Your task to perform on an android device: turn notification dots on Image 0: 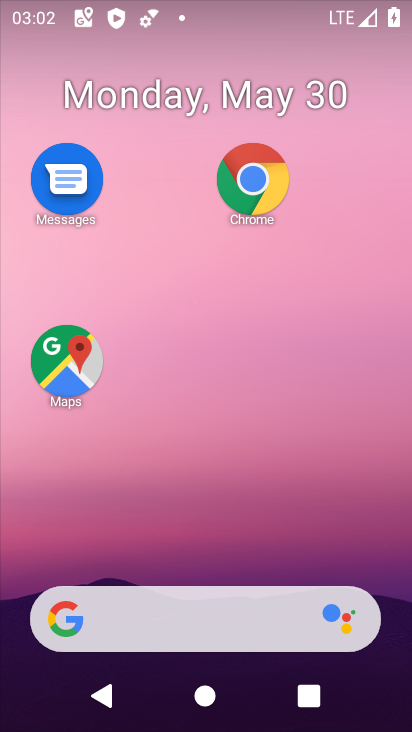
Step 0: drag from (205, 561) to (362, 255)
Your task to perform on an android device: turn notification dots on Image 1: 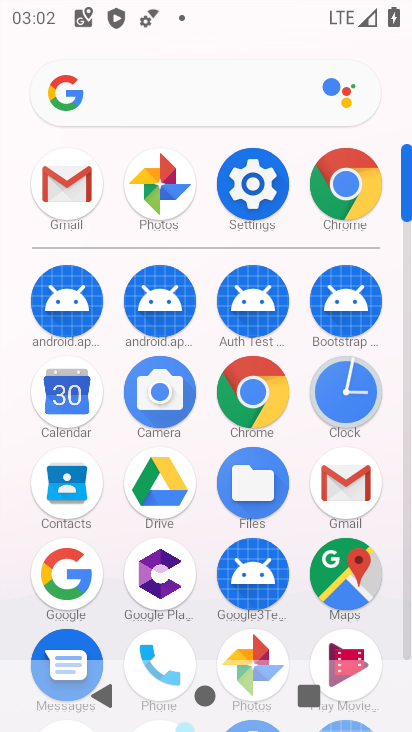
Step 1: click (55, 196)
Your task to perform on an android device: turn notification dots on Image 2: 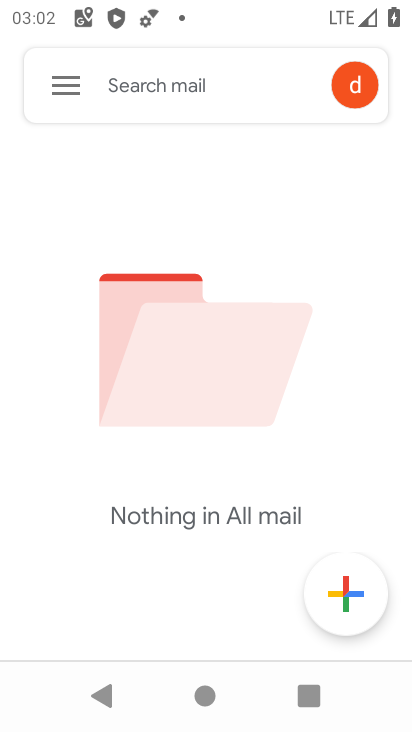
Step 2: click (75, 90)
Your task to perform on an android device: turn notification dots on Image 3: 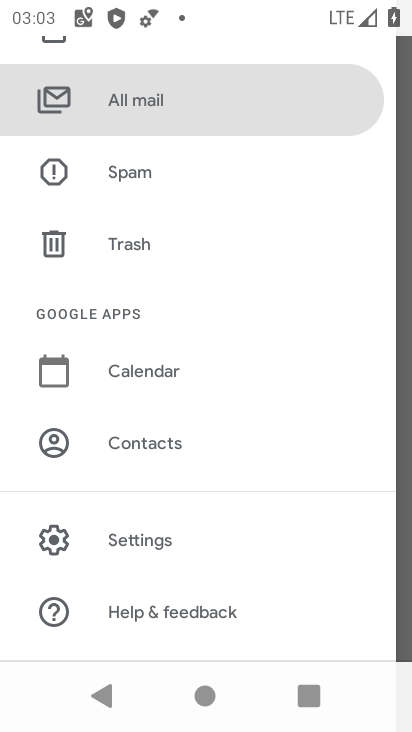
Step 3: click (157, 538)
Your task to perform on an android device: turn notification dots on Image 4: 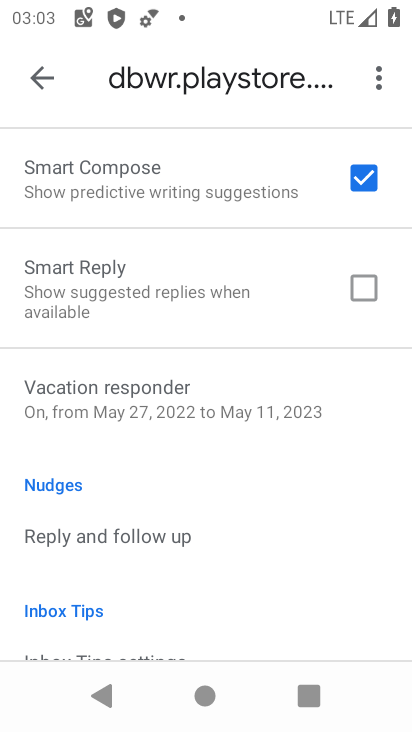
Step 4: drag from (143, 231) to (143, 650)
Your task to perform on an android device: turn notification dots on Image 5: 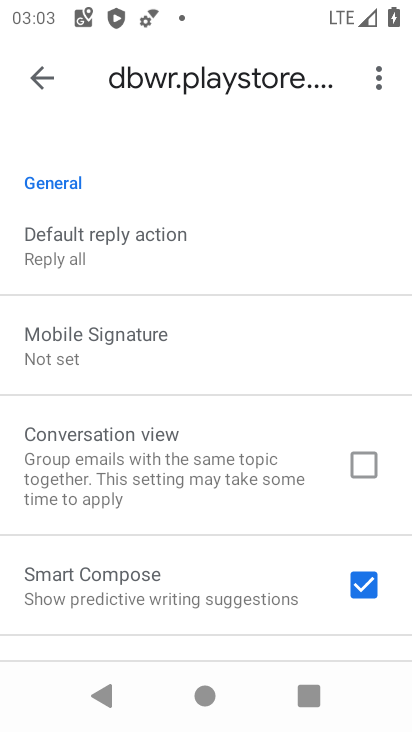
Step 5: drag from (117, 531) to (119, 692)
Your task to perform on an android device: turn notification dots on Image 6: 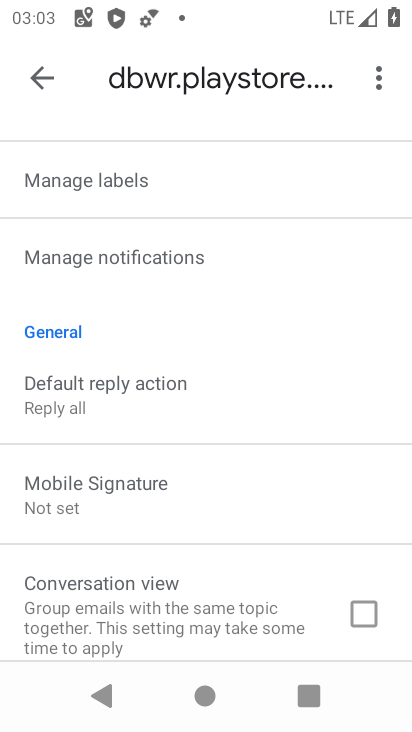
Step 6: drag from (149, 330) to (159, 731)
Your task to perform on an android device: turn notification dots on Image 7: 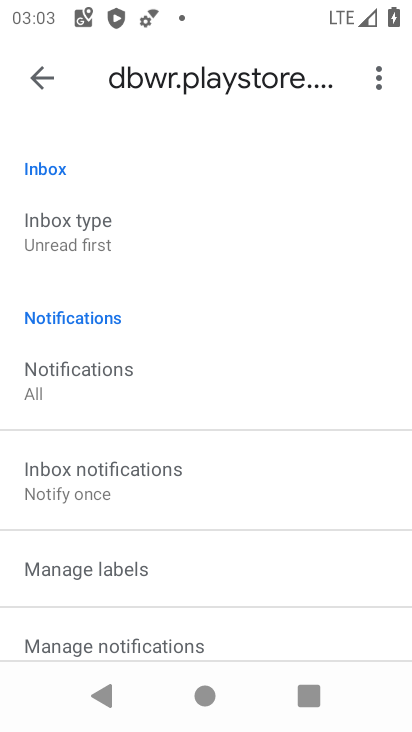
Step 7: drag from (149, 219) to (146, 557)
Your task to perform on an android device: turn notification dots on Image 8: 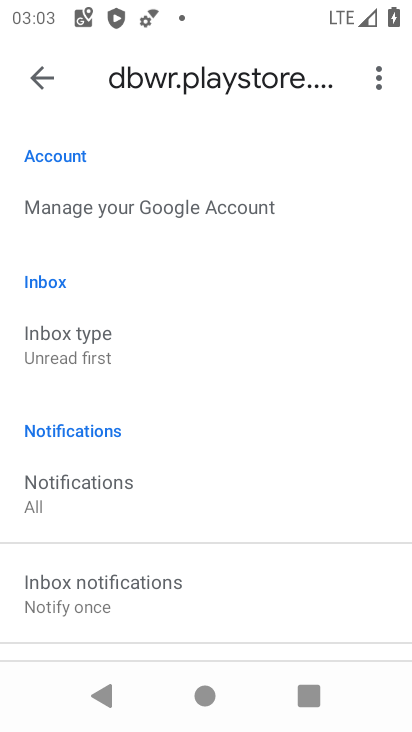
Step 8: press home button
Your task to perform on an android device: turn notification dots on Image 9: 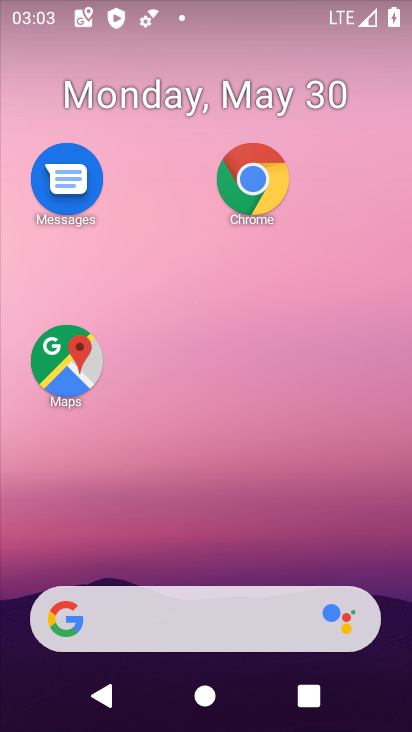
Step 9: drag from (239, 562) to (190, 55)
Your task to perform on an android device: turn notification dots on Image 10: 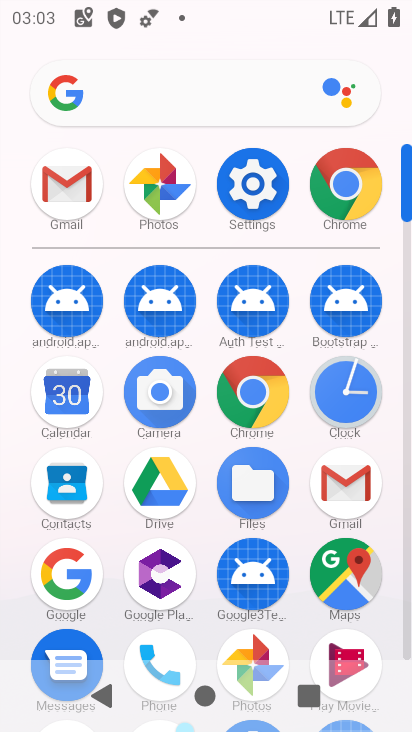
Step 10: click (254, 182)
Your task to perform on an android device: turn notification dots on Image 11: 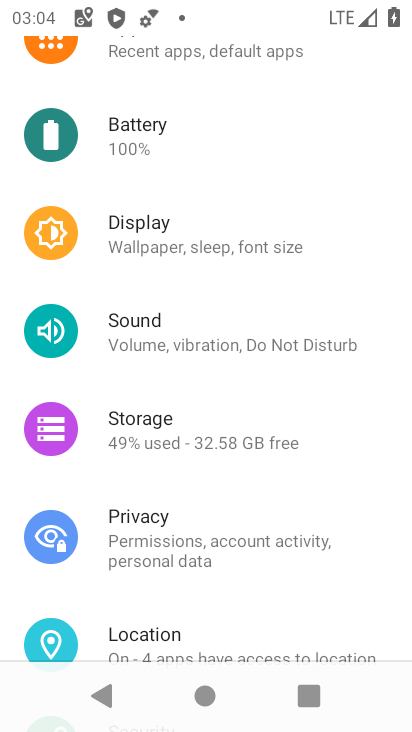
Step 11: drag from (201, 615) to (168, 279)
Your task to perform on an android device: turn notification dots on Image 12: 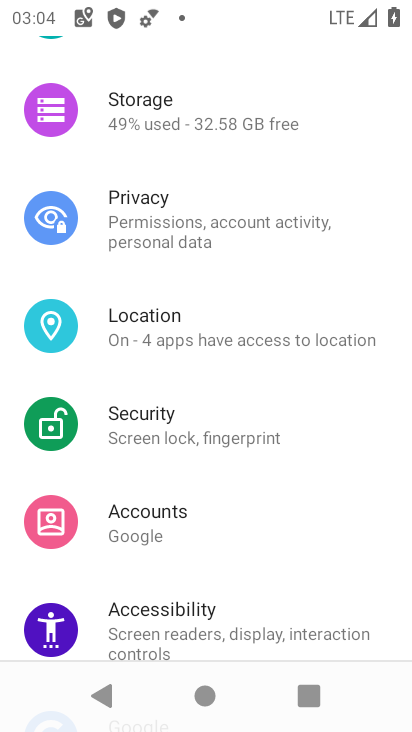
Step 12: drag from (176, 186) to (166, 615)
Your task to perform on an android device: turn notification dots on Image 13: 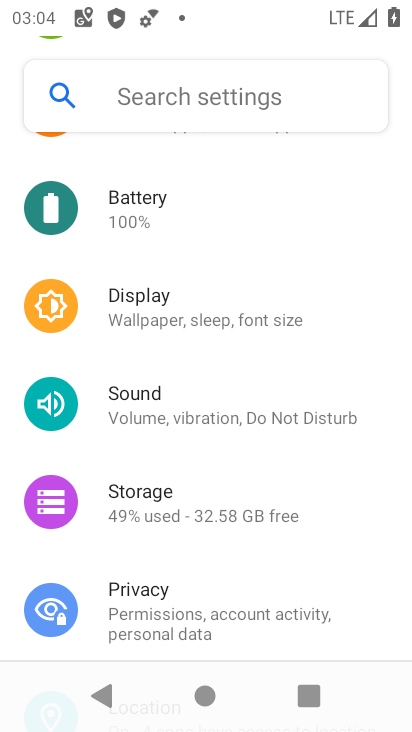
Step 13: drag from (159, 311) to (157, 728)
Your task to perform on an android device: turn notification dots on Image 14: 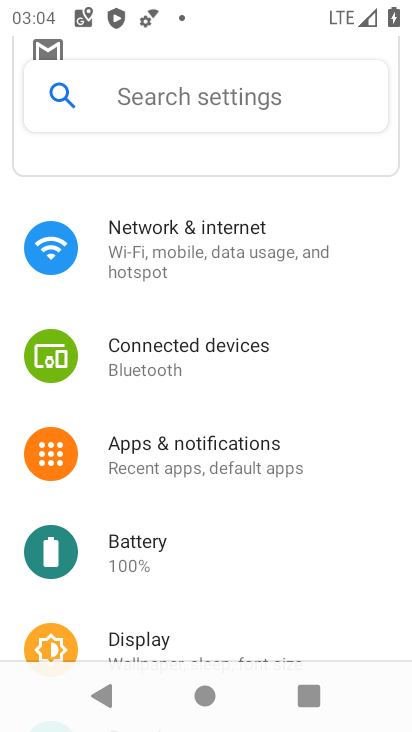
Step 14: click (184, 456)
Your task to perform on an android device: turn notification dots on Image 15: 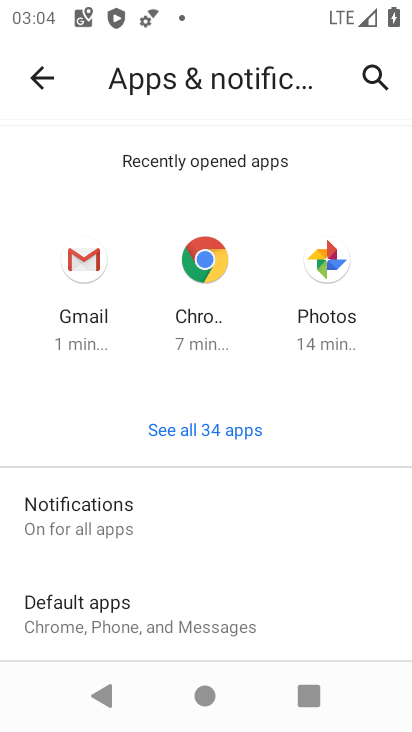
Step 15: click (132, 522)
Your task to perform on an android device: turn notification dots on Image 16: 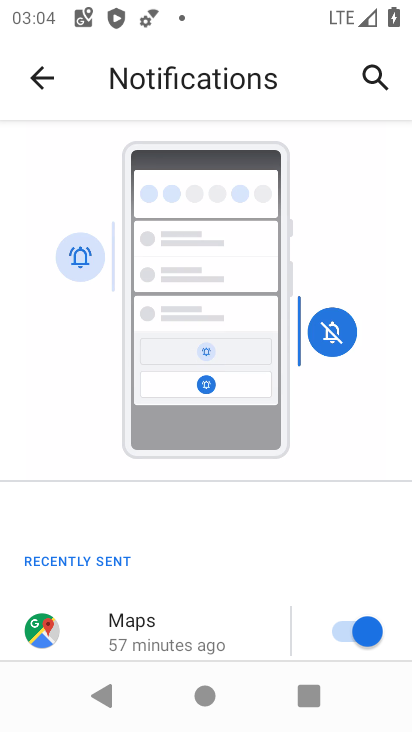
Step 16: drag from (177, 616) to (177, 184)
Your task to perform on an android device: turn notification dots on Image 17: 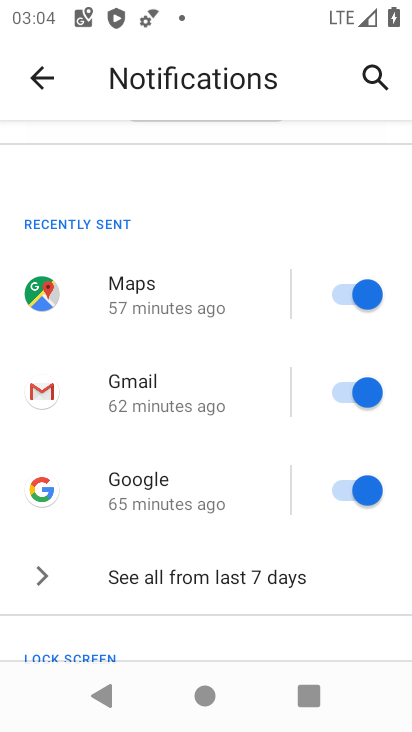
Step 17: drag from (167, 629) to (228, 239)
Your task to perform on an android device: turn notification dots on Image 18: 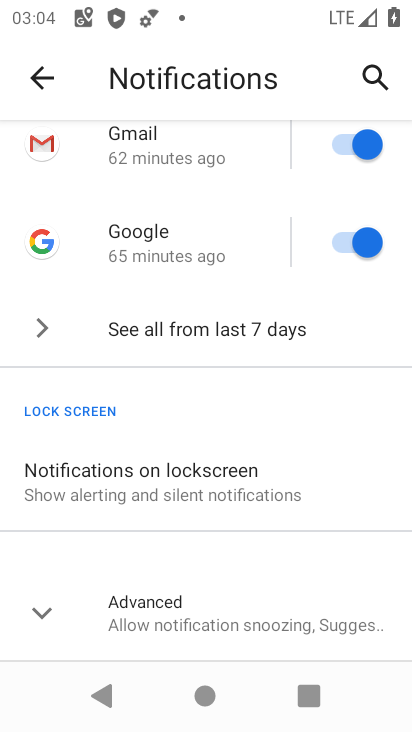
Step 18: click (176, 626)
Your task to perform on an android device: turn notification dots on Image 19: 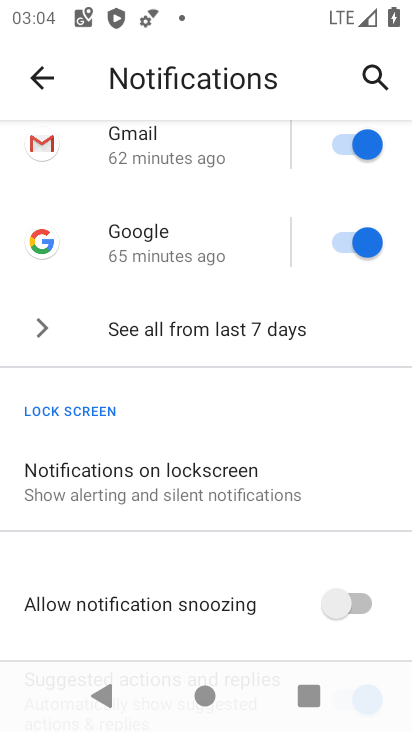
Step 19: drag from (178, 606) to (186, 184)
Your task to perform on an android device: turn notification dots on Image 20: 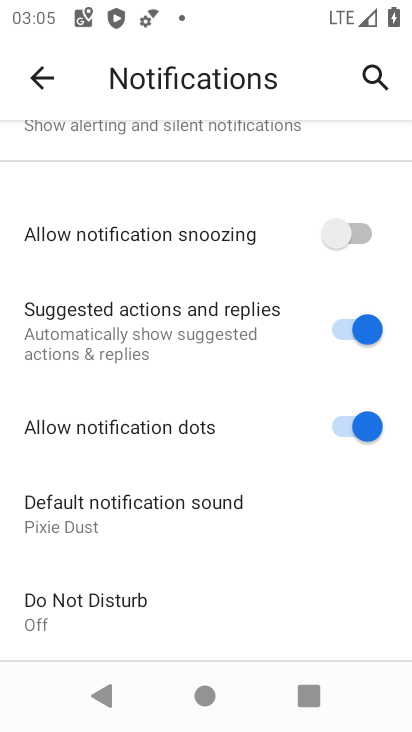
Step 20: drag from (199, 638) to (215, 251)
Your task to perform on an android device: turn notification dots on Image 21: 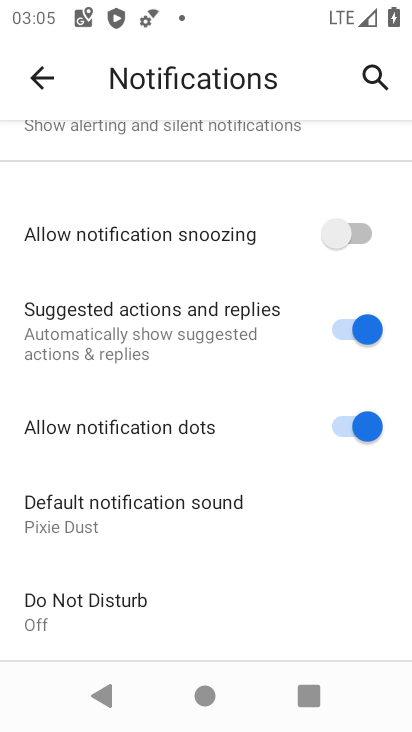
Step 21: click (343, 426)
Your task to perform on an android device: turn notification dots on Image 22: 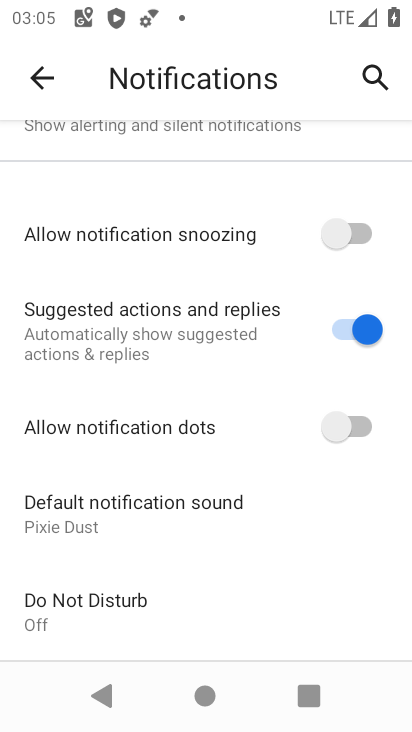
Step 22: task complete